Your task to perform on an android device: turn on javascript in the chrome app Image 0: 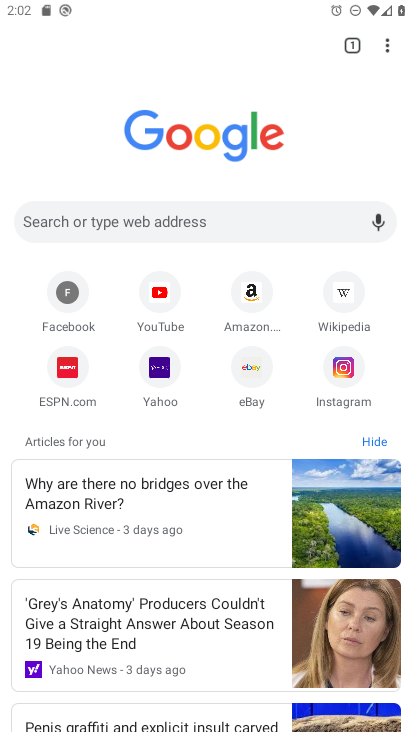
Step 0: drag from (388, 42) to (276, 391)
Your task to perform on an android device: turn on javascript in the chrome app Image 1: 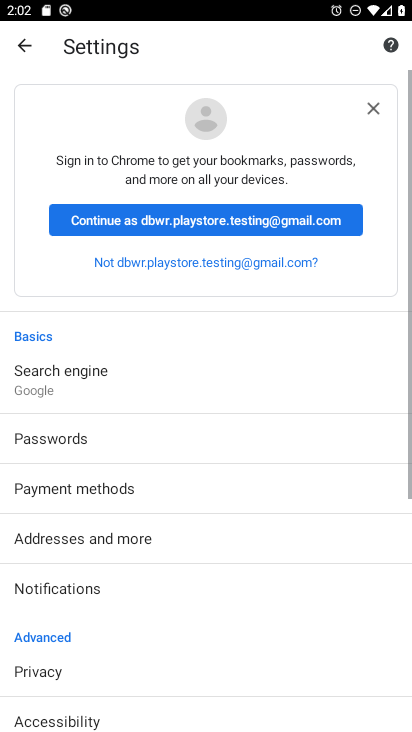
Step 1: drag from (322, 580) to (323, 67)
Your task to perform on an android device: turn on javascript in the chrome app Image 2: 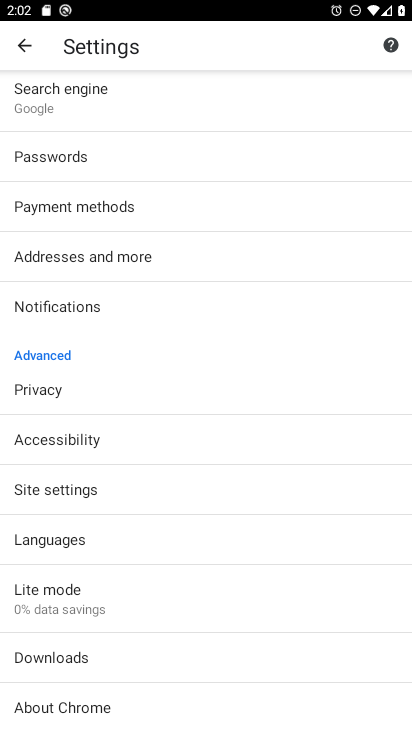
Step 2: drag from (151, 653) to (176, 269)
Your task to perform on an android device: turn on javascript in the chrome app Image 3: 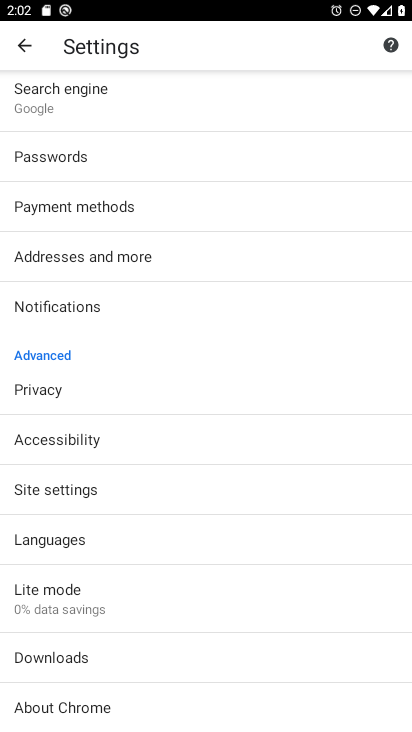
Step 3: click (49, 485)
Your task to perform on an android device: turn on javascript in the chrome app Image 4: 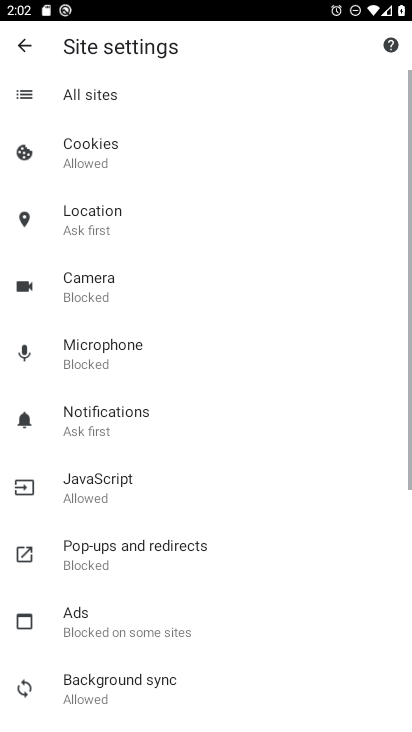
Step 4: click (195, 497)
Your task to perform on an android device: turn on javascript in the chrome app Image 5: 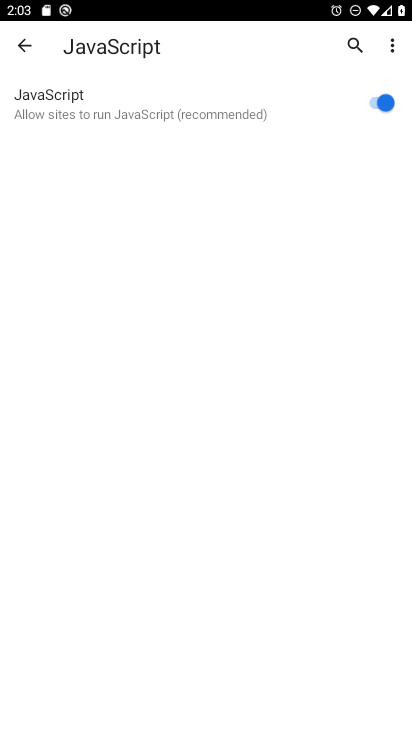
Step 5: task complete